Your task to perform on an android device: refresh tabs in the chrome app Image 0: 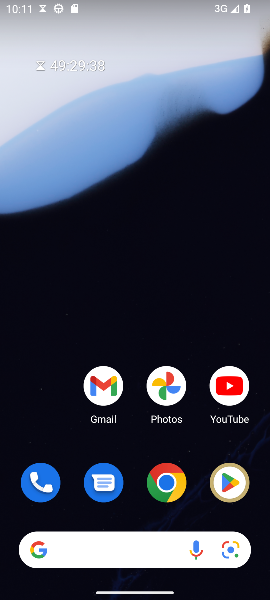
Step 0: drag from (120, 513) to (188, 3)
Your task to perform on an android device: refresh tabs in the chrome app Image 1: 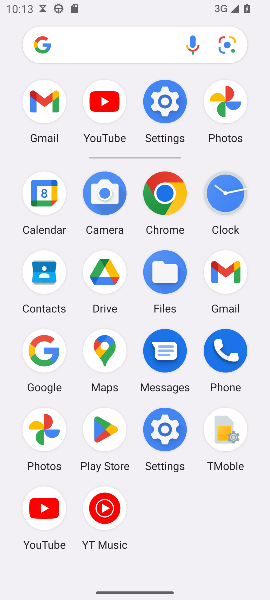
Step 1: click (168, 201)
Your task to perform on an android device: refresh tabs in the chrome app Image 2: 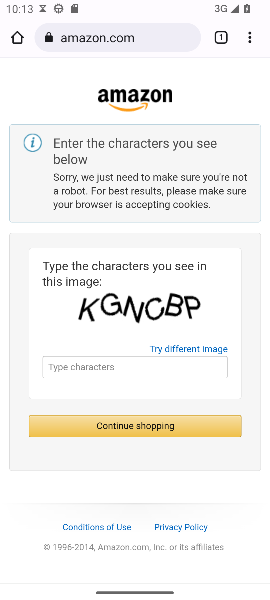
Step 2: click (247, 38)
Your task to perform on an android device: refresh tabs in the chrome app Image 3: 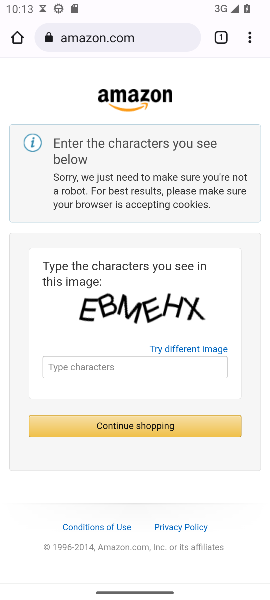
Step 3: task complete